Your task to perform on an android device: toggle notification dots Image 0: 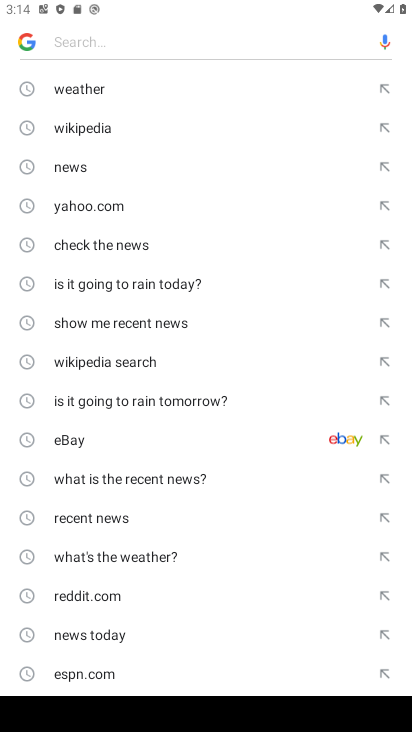
Step 0: press home button
Your task to perform on an android device: toggle notification dots Image 1: 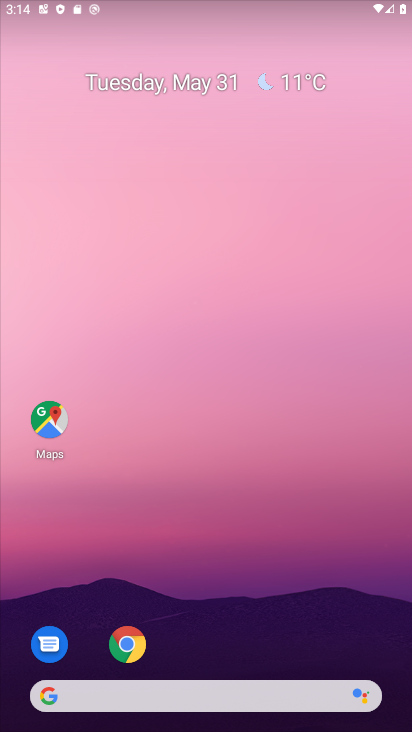
Step 1: click (396, 159)
Your task to perform on an android device: toggle notification dots Image 2: 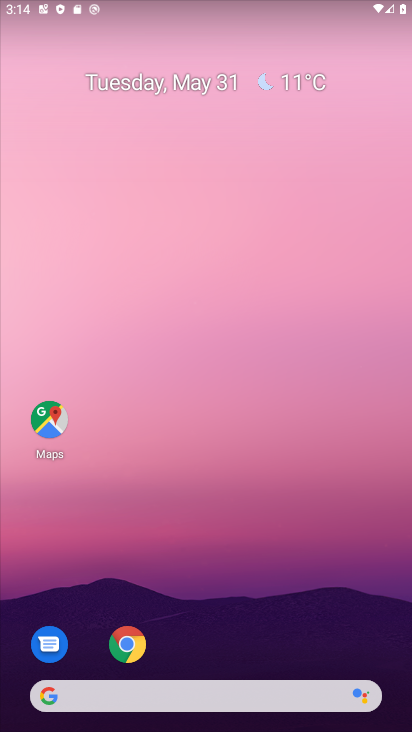
Step 2: drag from (265, 631) to (307, 102)
Your task to perform on an android device: toggle notification dots Image 3: 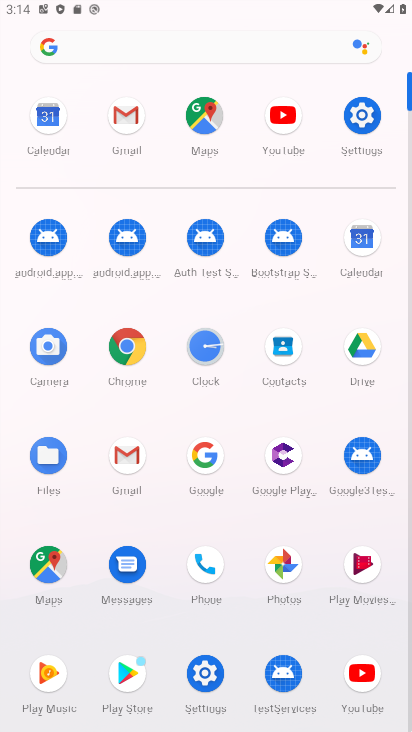
Step 3: click (375, 112)
Your task to perform on an android device: toggle notification dots Image 4: 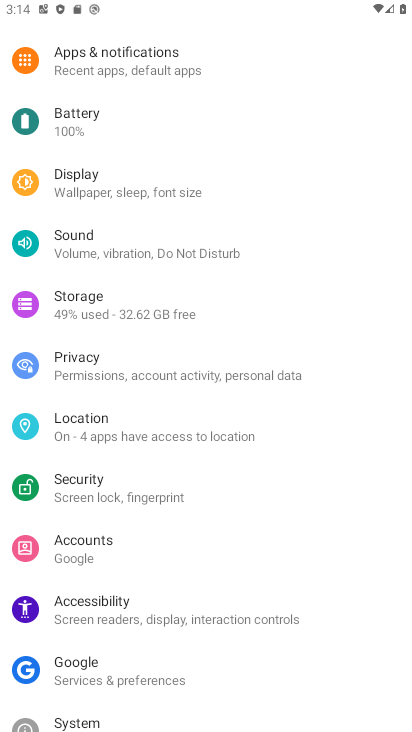
Step 4: click (270, 56)
Your task to perform on an android device: toggle notification dots Image 5: 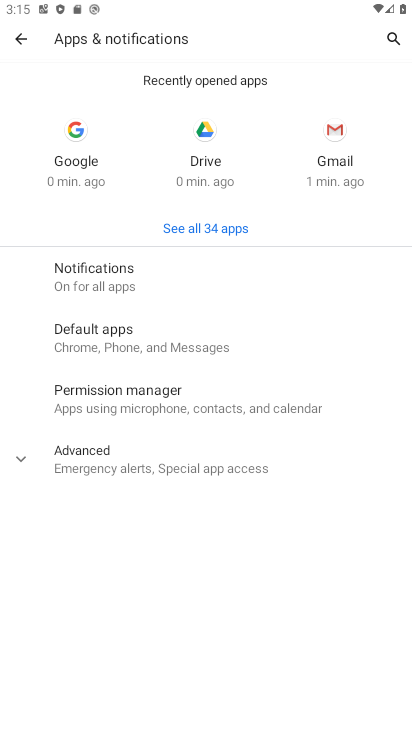
Step 5: click (254, 261)
Your task to perform on an android device: toggle notification dots Image 6: 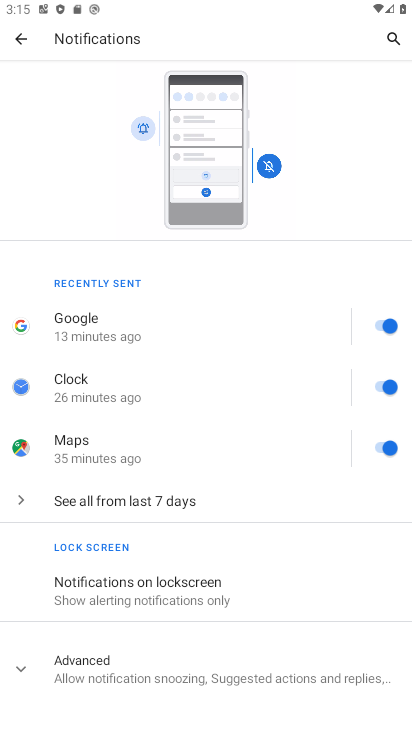
Step 6: click (110, 584)
Your task to perform on an android device: toggle notification dots Image 7: 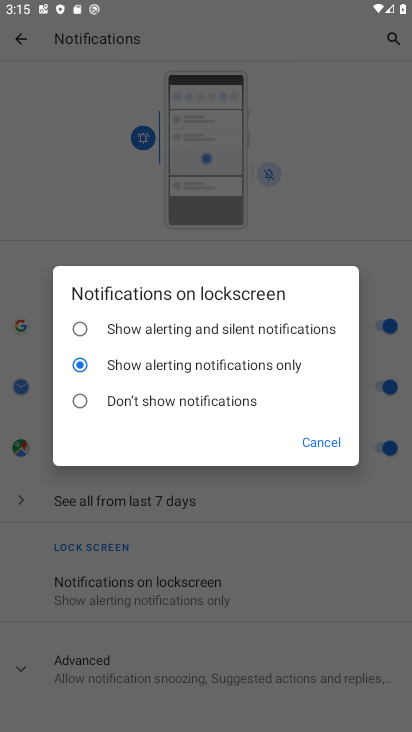
Step 7: click (318, 447)
Your task to perform on an android device: toggle notification dots Image 8: 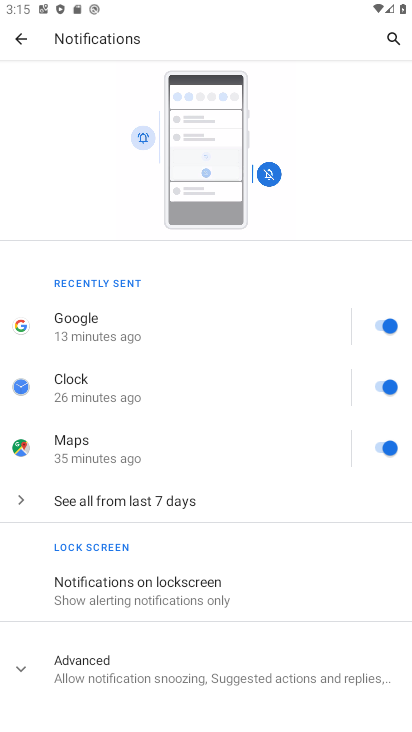
Step 8: drag from (332, 672) to (361, 281)
Your task to perform on an android device: toggle notification dots Image 9: 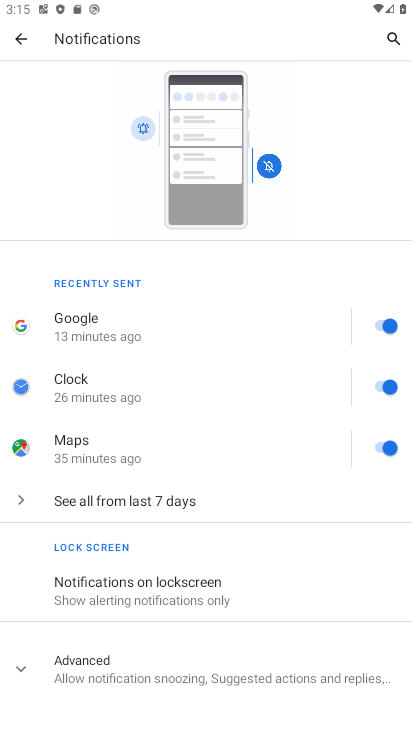
Step 9: click (177, 685)
Your task to perform on an android device: toggle notification dots Image 10: 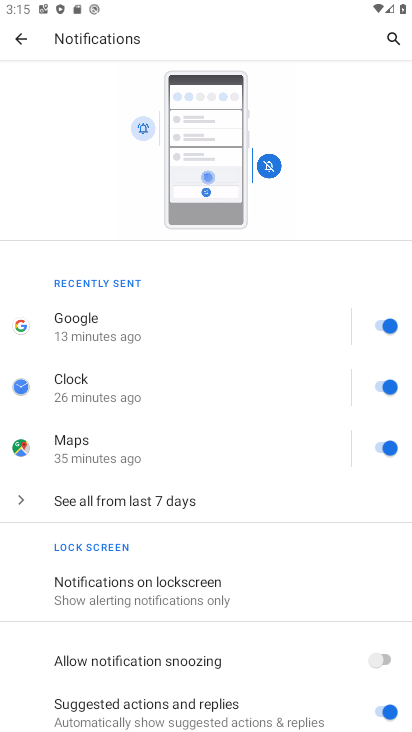
Step 10: drag from (197, 701) to (335, 258)
Your task to perform on an android device: toggle notification dots Image 11: 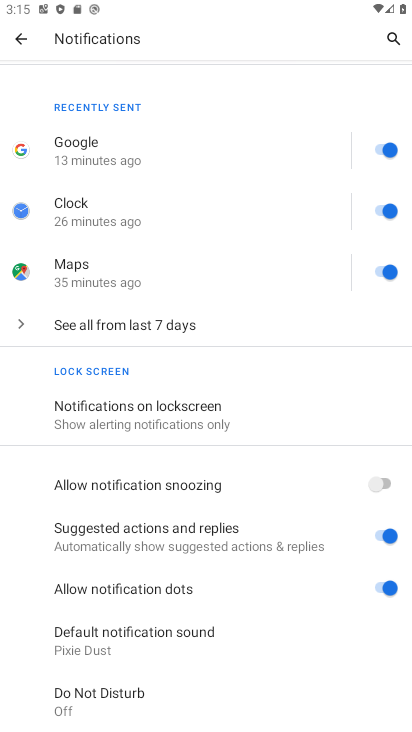
Step 11: click (380, 585)
Your task to perform on an android device: toggle notification dots Image 12: 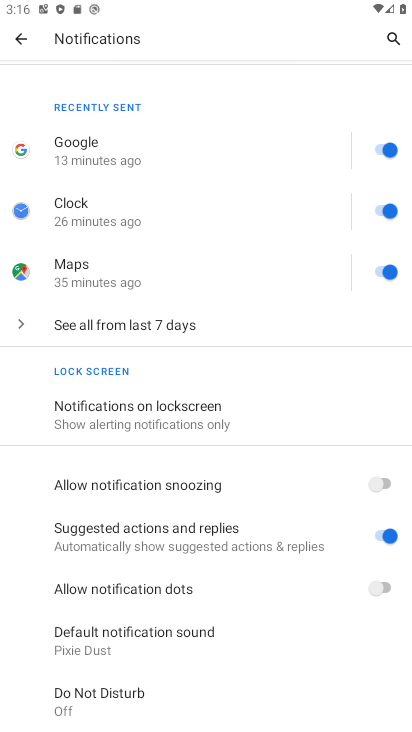
Step 12: task complete